Your task to perform on an android device: set an alarm Image 0: 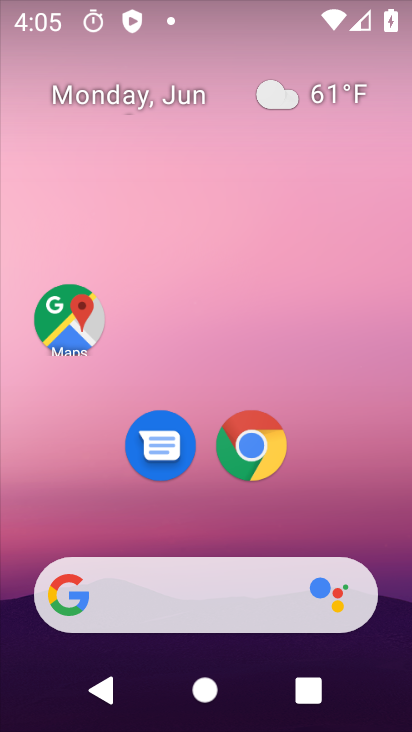
Step 0: drag from (192, 540) to (196, 27)
Your task to perform on an android device: set an alarm Image 1: 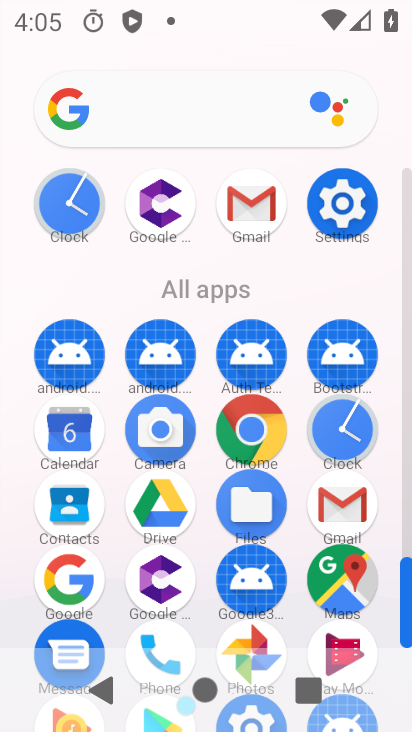
Step 1: click (350, 446)
Your task to perform on an android device: set an alarm Image 2: 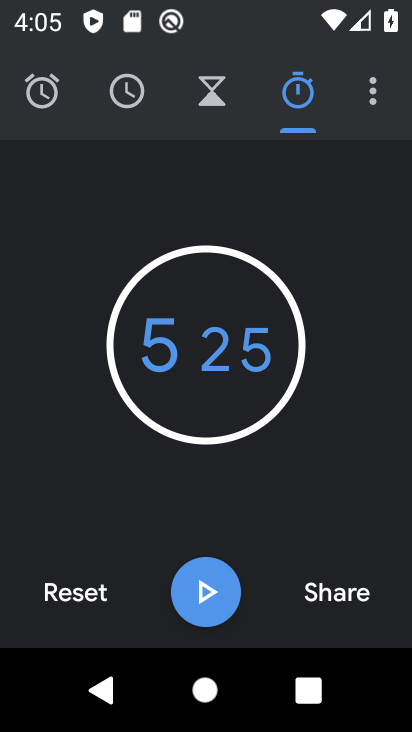
Step 2: click (38, 101)
Your task to perform on an android device: set an alarm Image 3: 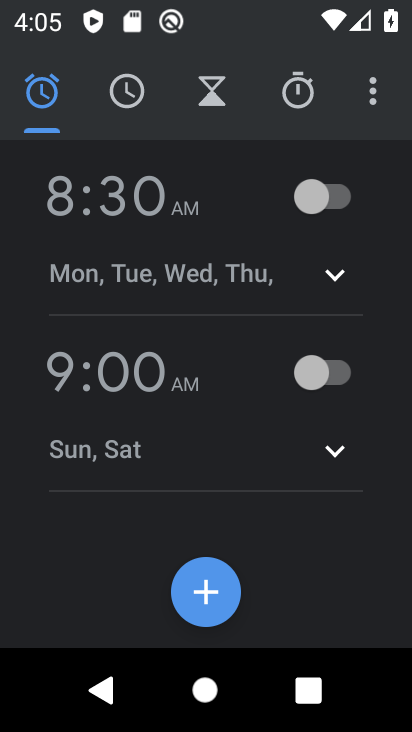
Step 3: click (344, 198)
Your task to perform on an android device: set an alarm Image 4: 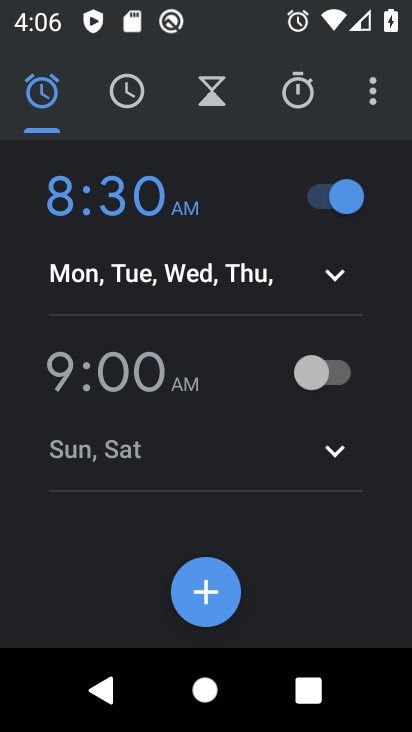
Step 4: task complete